Your task to perform on an android device: open sync settings in chrome Image 0: 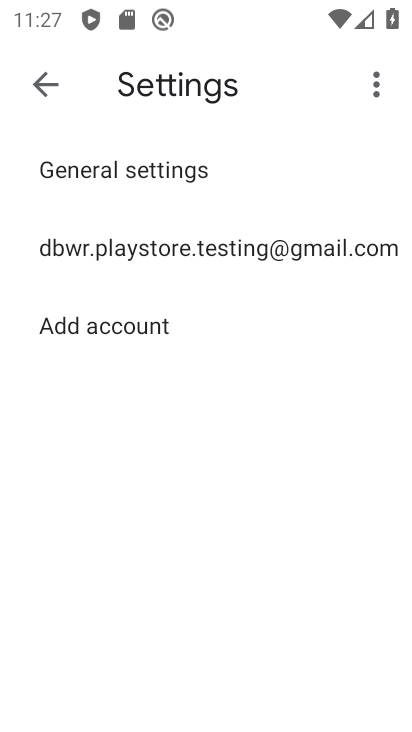
Step 0: press home button
Your task to perform on an android device: open sync settings in chrome Image 1: 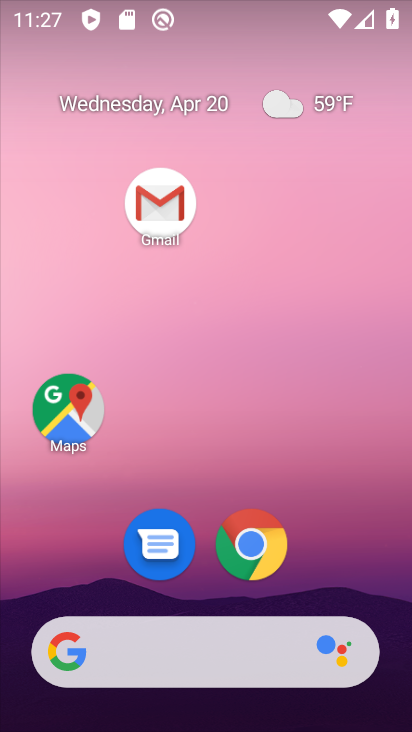
Step 1: click (253, 546)
Your task to perform on an android device: open sync settings in chrome Image 2: 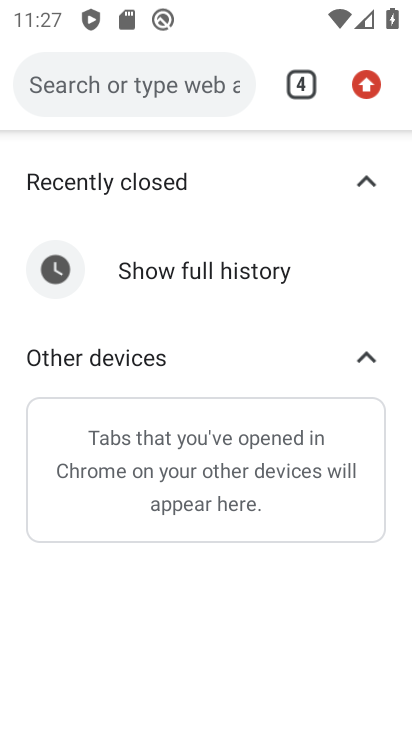
Step 2: click (374, 75)
Your task to perform on an android device: open sync settings in chrome Image 3: 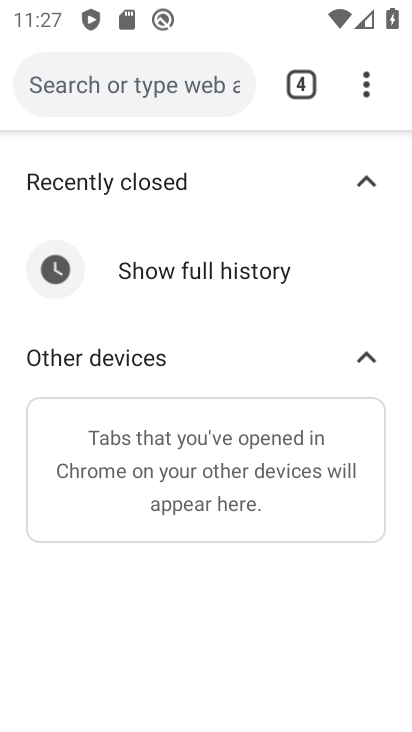
Step 3: click (372, 76)
Your task to perform on an android device: open sync settings in chrome Image 4: 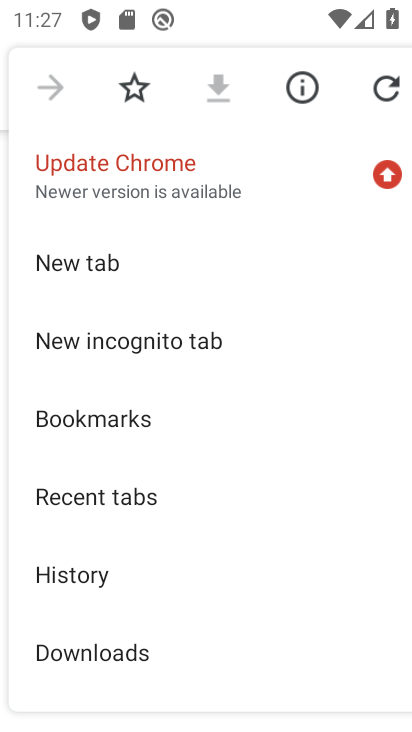
Step 4: drag from (180, 565) to (280, 204)
Your task to perform on an android device: open sync settings in chrome Image 5: 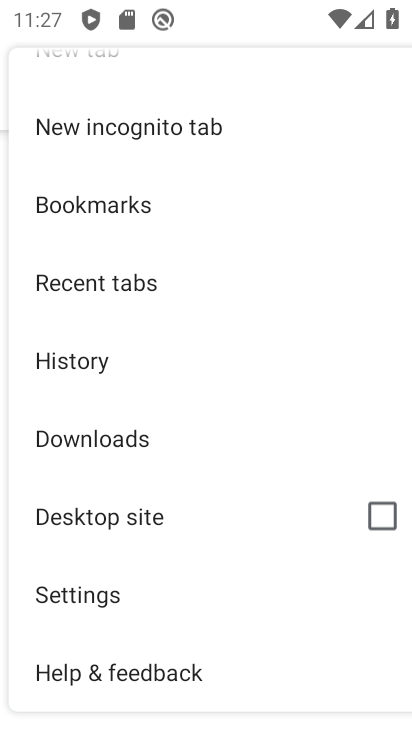
Step 5: click (191, 585)
Your task to perform on an android device: open sync settings in chrome Image 6: 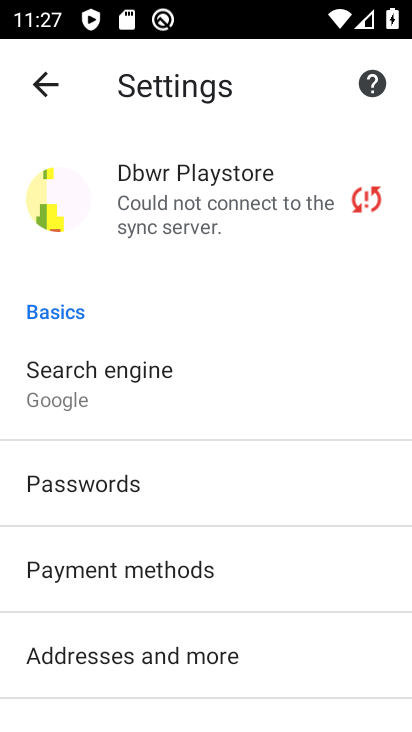
Step 6: drag from (191, 585) to (290, 195)
Your task to perform on an android device: open sync settings in chrome Image 7: 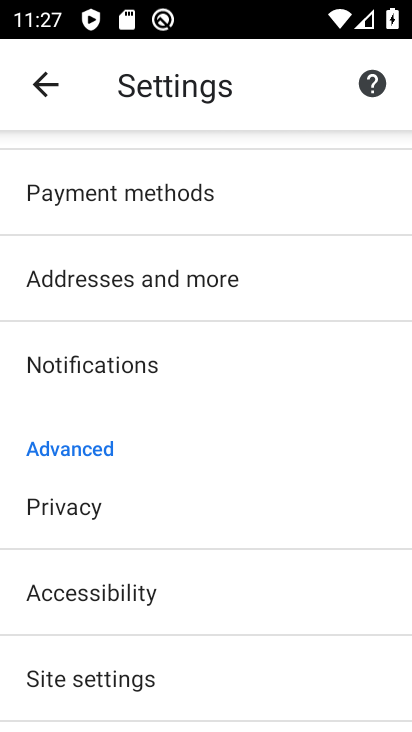
Step 7: drag from (251, 612) to (299, 284)
Your task to perform on an android device: open sync settings in chrome Image 8: 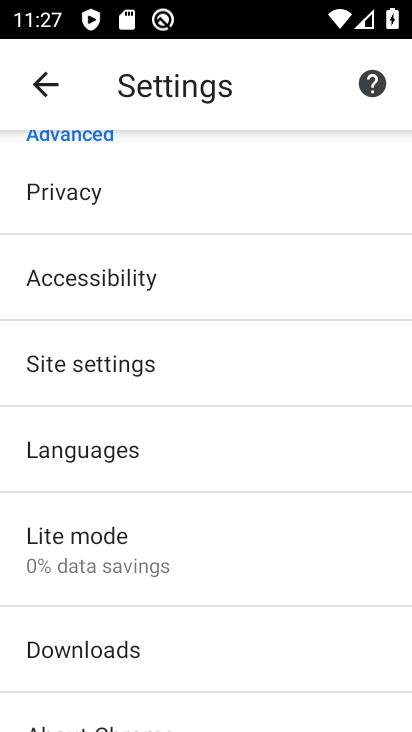
Step 8: drag from (171, 616) to (227, 284)
Your task to perform on an android device: open sync settings in chrome Image 9: 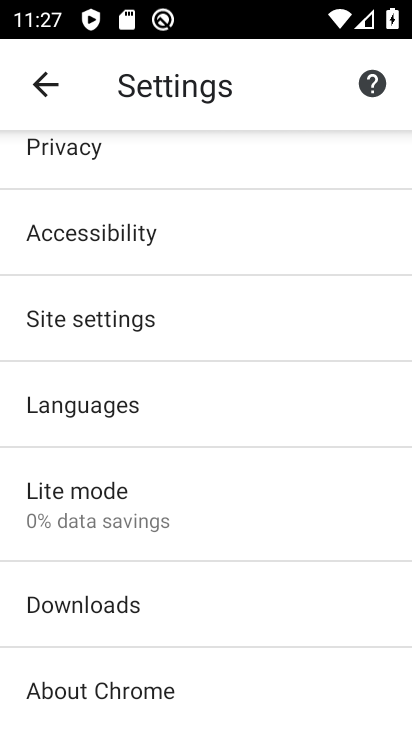
Step 9: click (219, 299)
Your task to perform on an android device: open sync settings in chrome Image 10: 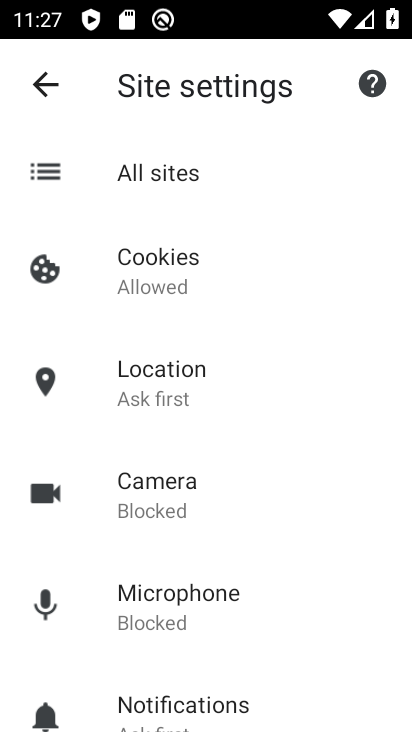
Step 10: drag from (247, 652) to (264, 373)
Your task to perform on an android device: open sync settings in chrome Image 11: 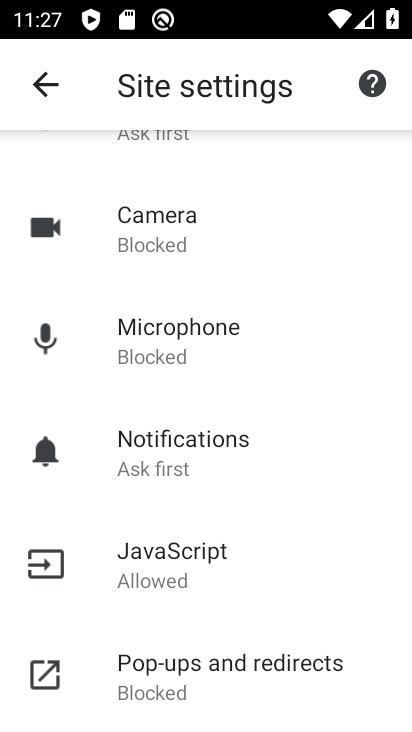
Step 11: drag from (328, 587) to (383, 279)
Your task to perform on an android device: open sync settings in chrome Image 12: 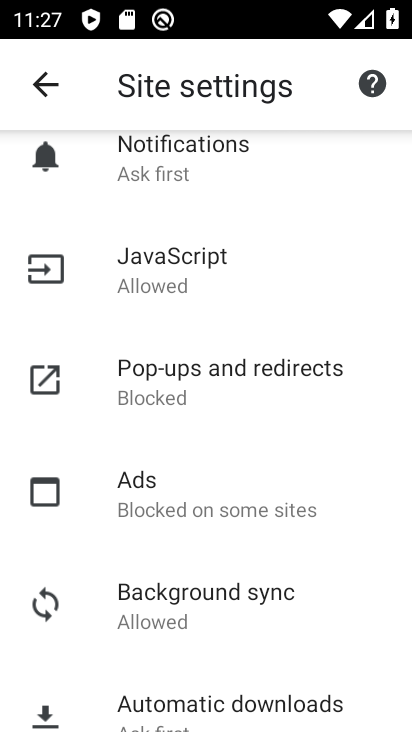
Step 12: click (165, 258)
Your task to perform on an android device: open sync settings in chrome Image 13: 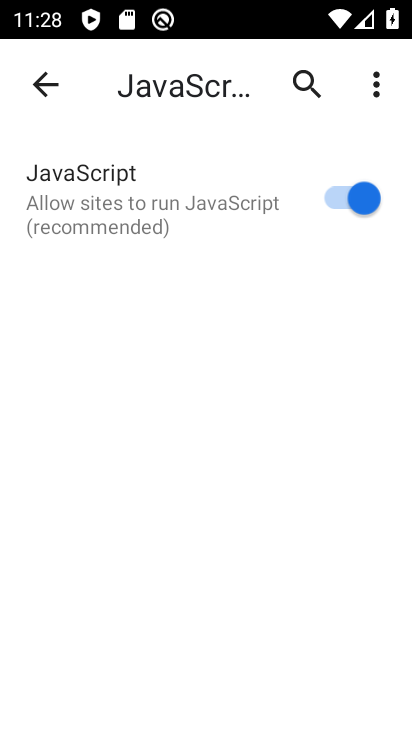
Step 13: task complete